Your task to perform on an android device: When is my next meeting? Image 0: 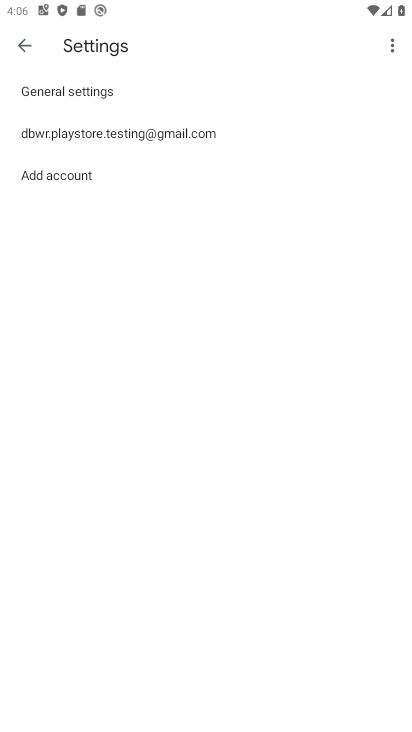
Step 0: press back button
Your task to perform on an android device: When is my next meeting? Image 1: 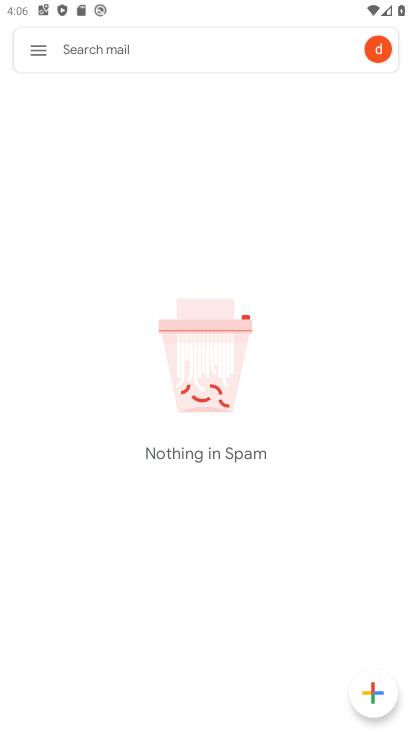
Step 1: press back button
Your task to perform on an android device: When is my next meeting? Image 2: 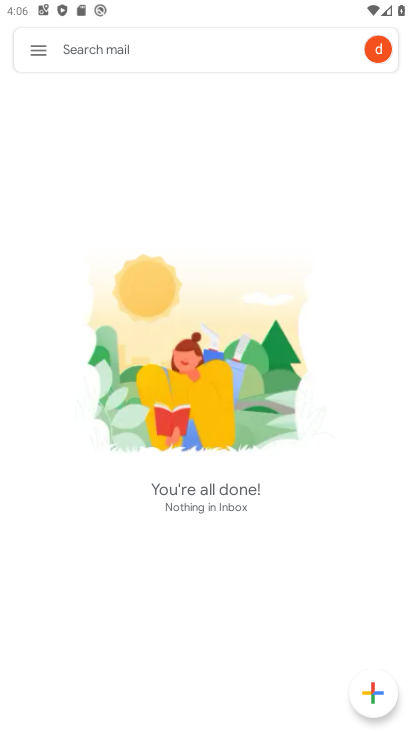
Step 2: press back button
Your task to perform on an android device: When is my next meeting? Image 3: 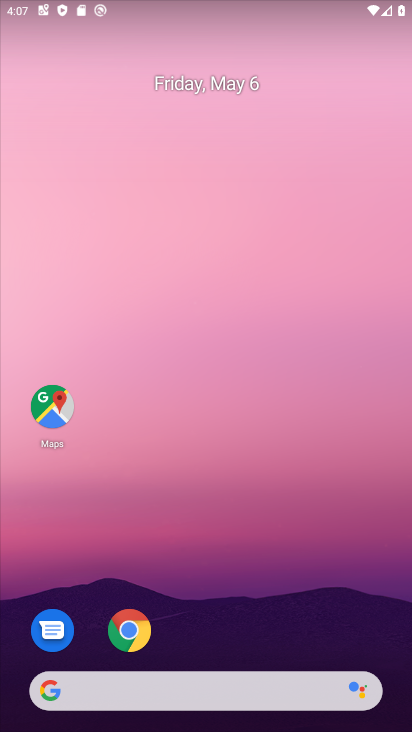
Step 3: drag from (303, 385) to (304, 23)
Your task to perform on an android device: When is my next meeting? Image 4: 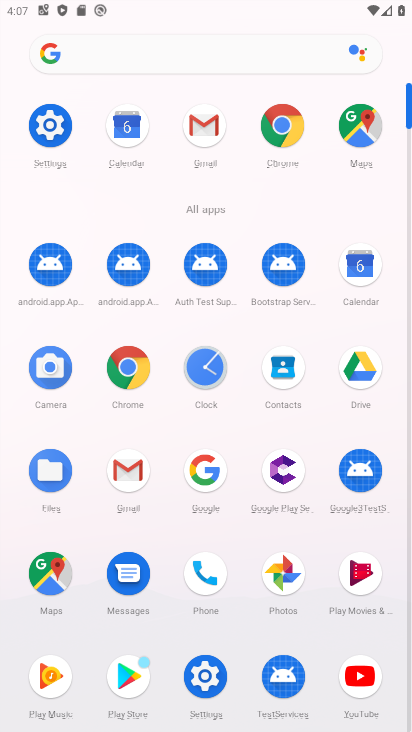
Step 4: click (138, 124)
Your task to perform on an android device: When is my next meeting? Image 5: 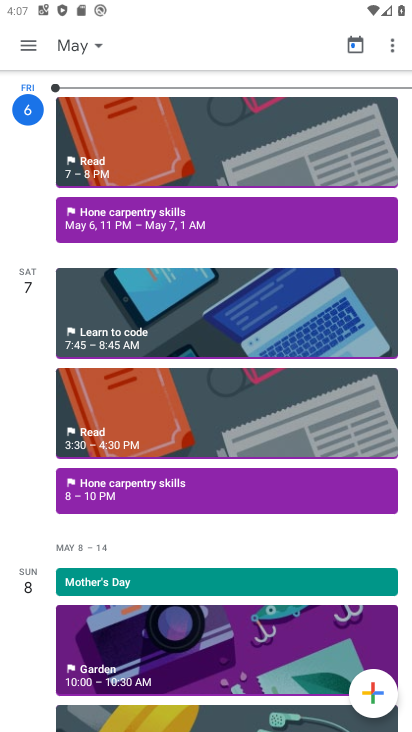
Step 5: drag from (134, 648) to (249, 112)
Your task to perform on an android device: When is my next meeting? Image 6: 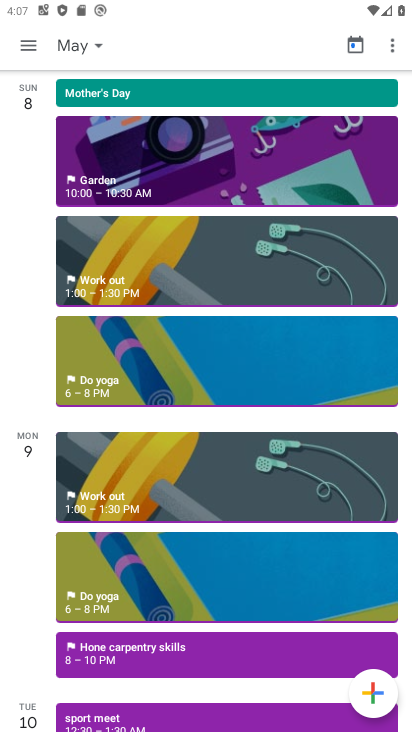
Step 6: drag from (203, 654) to (268, 320)
Your task to perform on an android device: When is my next meeting? Image 7: 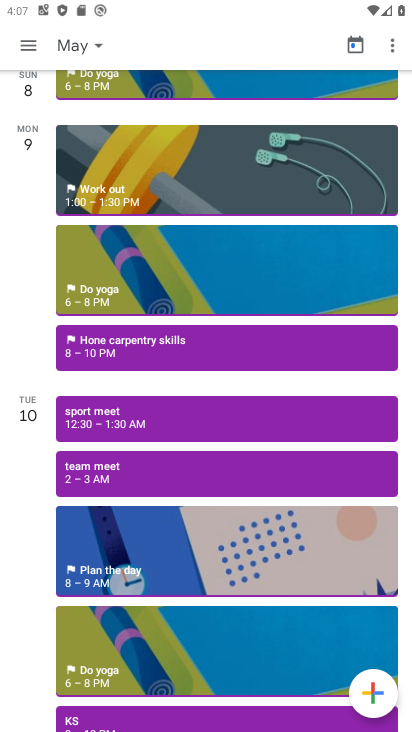
Step 7: click (103, 476)
Your task to perform on an android device: When is my next meeting? Image 8: 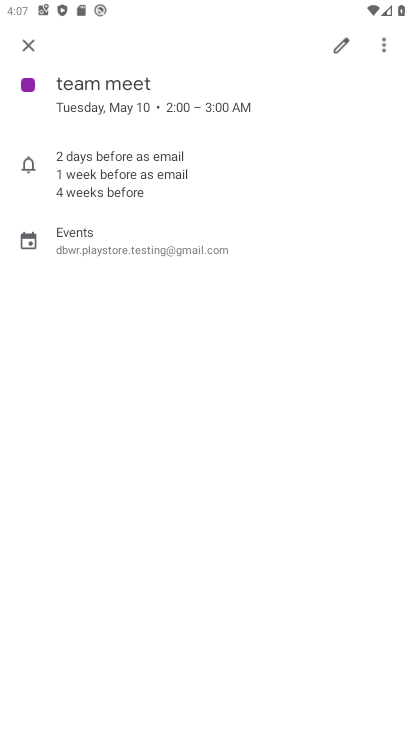
Step 8: task complete